Your task to perform on an android device: uninstall "Google Pay: Save, Pay, Manage" Image 0: 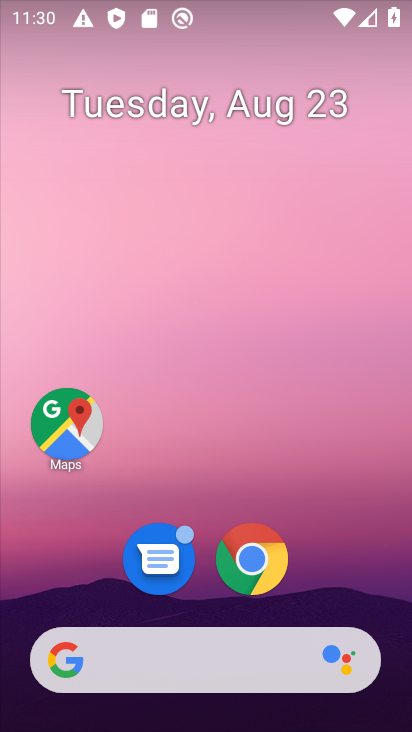
Step 0: drag from (198, 616) to (259, 65)
Your task to perform on an android device: uninstall "Google Pay: Save, Pay, Manage" Image 1: 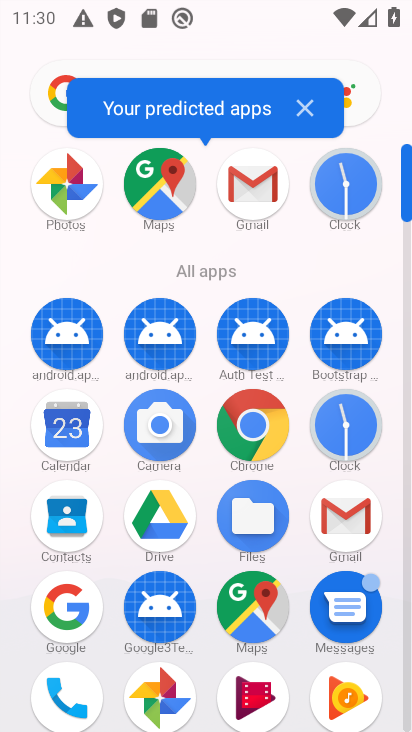
Step 1: drag from (172, 542) to (258, 39)
Your task to perform on an android device: uninstall "Google Pay: Save, Pay, Manage" Image 2: 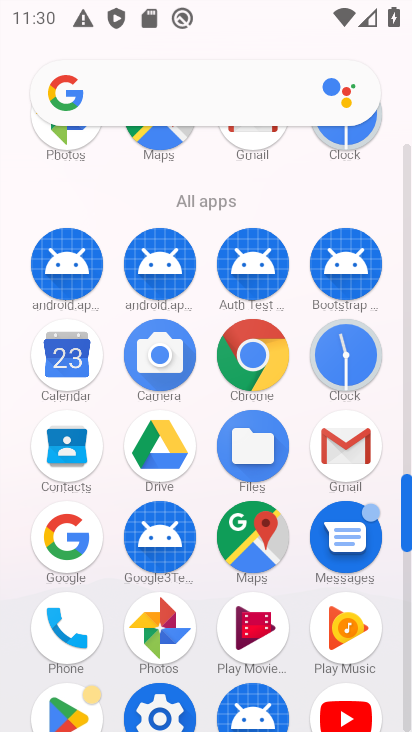
Step 2: drag from (86, 683) to (109, 415)
Your task to perform on an android device: uninstall "Google Pay: Save, Pay, Manage" Image 3: 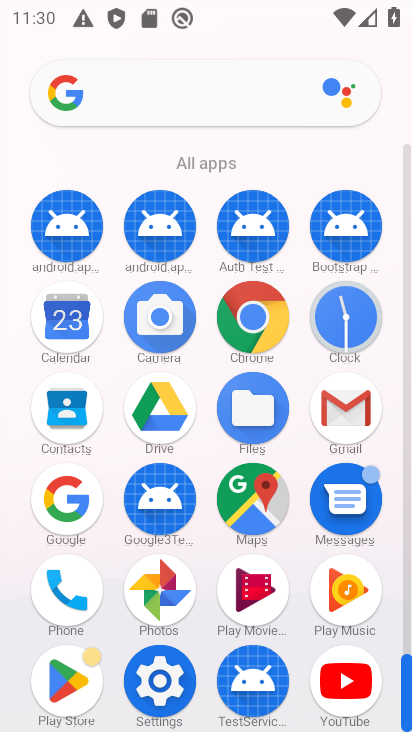
Step 3: click (60, 689)
Your task to perform on an android device: uninstall "Google Pay: Save, Pay, Manage" Image 4: 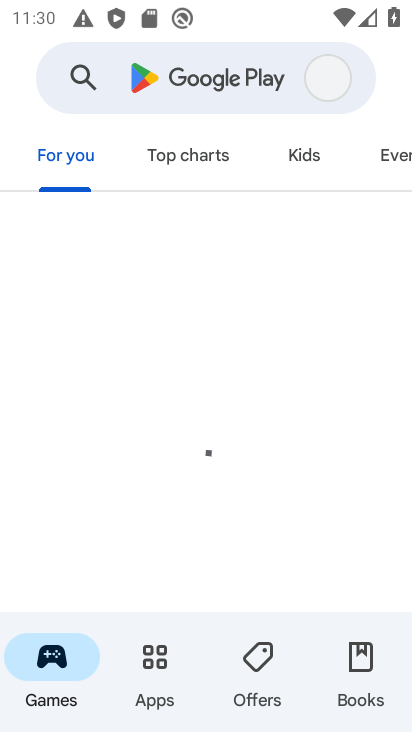
Step 4: click (202, 92)
Your task to perform on an android device: uninstall "Google Pay: Save, Pay, Manage" Image 5: 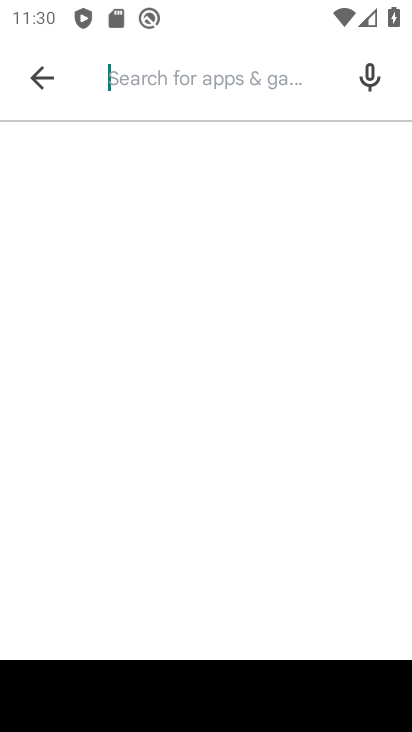
Step 5: type "google pay"
Your task to perform on an android device: uninstall "Google Pay: Save, Pay, Manage" Image 6: 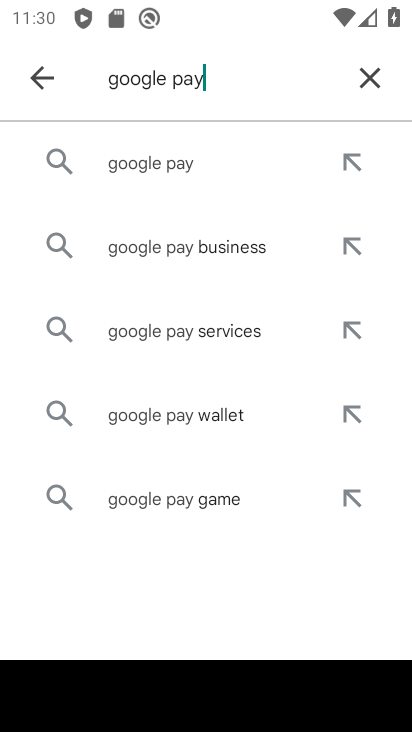
Step 6: click (181, 181)
Your task to perform on an android device: uninstall "Google Pay: Save, Pay, Manage" Image 7: 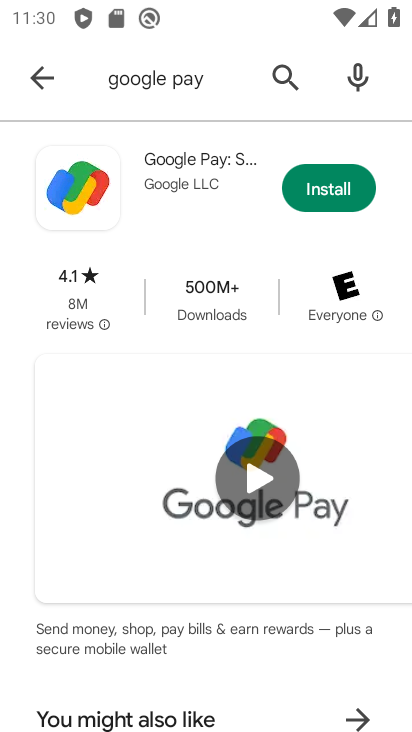
Step 7: task complete